Your task to perform on an android device: change text size in settings app Image 0: 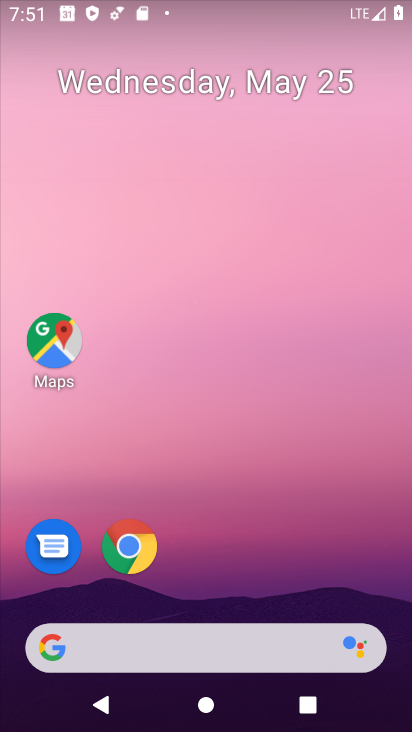
Step 0: drag from (389, 586) to (402, 194)
Your task to perform on an android device: change text size in settings app Image 1: 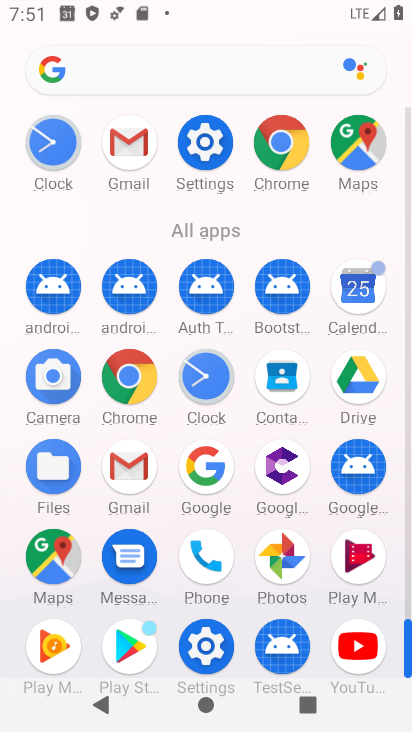
Step 1: click (214, 643)
Your task to perform on an android device: change text size in settings app Image 2: 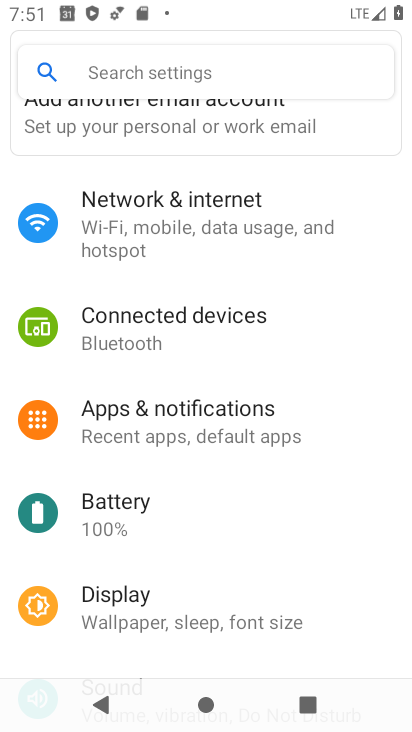
Step 2: drag from (315, 522) to (329, 414)
Your task to perform on an android device: change text size in settings app Image 3: 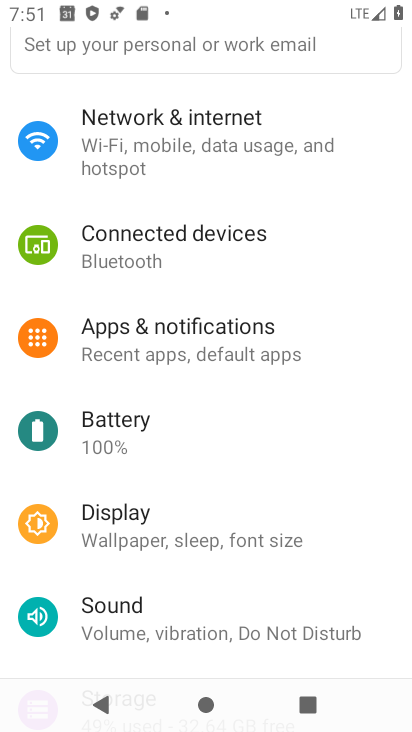
Step 3: drag from (332, 528) to (347, 436)
Your task to perform on an android device: change text size in settings app Image 4: 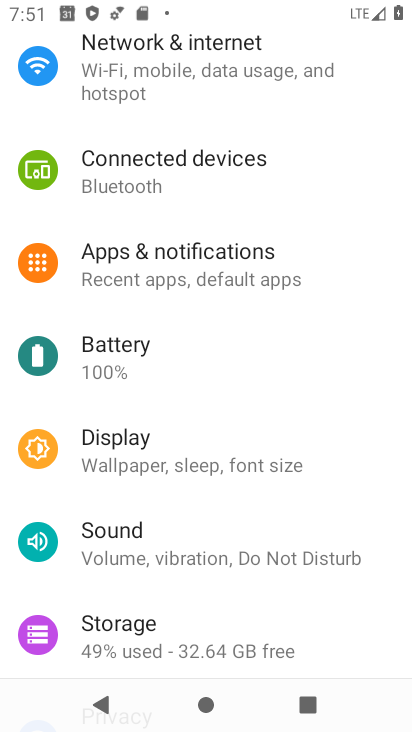
Step 4: drag from (360, 626) to (376, 497)
Your task to perform on an android device: change text size in settings app Image 5: 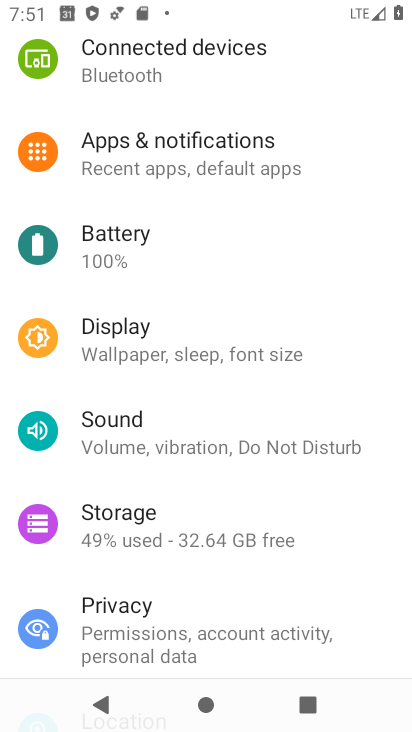
Step 5: drag from (361, 610) to (374, 503)
Your task to perform on an android device: change text size in settings app Image 6: 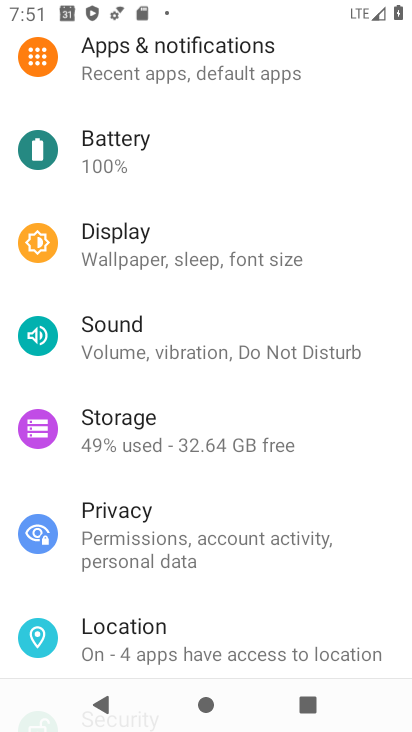
Step 6: drag from (367, 603) to (402, 457)
Your task to perform on an android device: change text size in settings app Image 7: 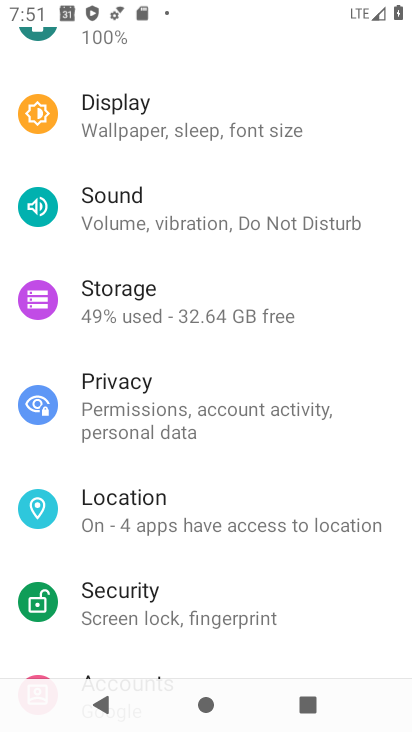
Step 7: drag from (352, 613) to (352, 480)
Your task to perform on an android device: change text size in settings app Image 8: 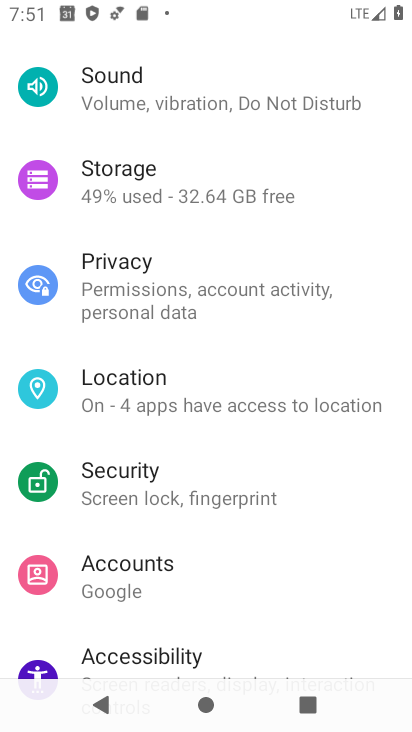
Step 8: drag from (377, 619) to (377, 505)
Your task to perform on an android device: change text size in settings app Image 9: 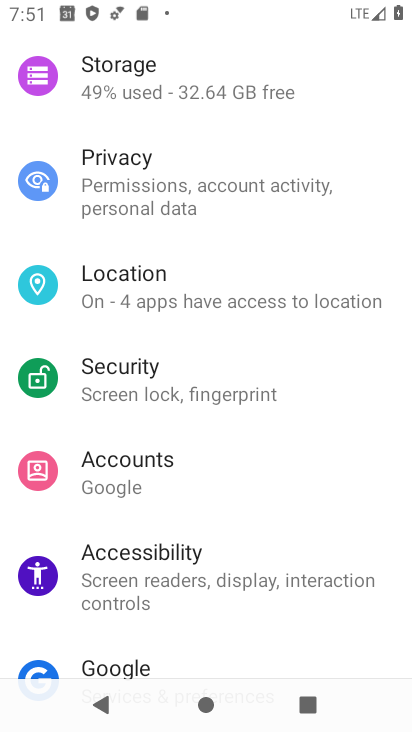
Step 9: drag from (372, 633) to (363, 481)
Your task to perform on an android device: change text size in settings app Image 10: 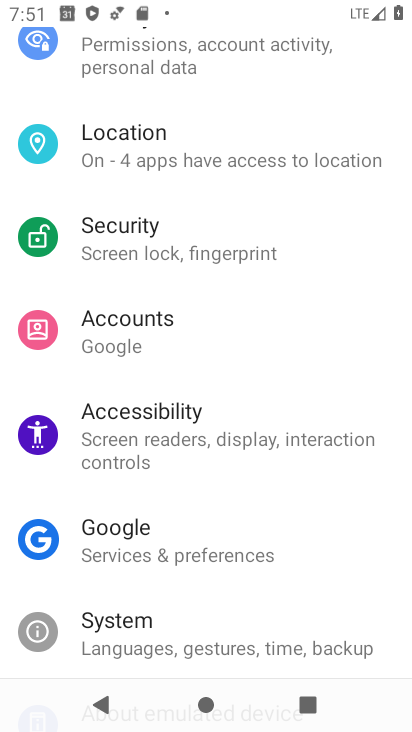
Step 10: drag from (371, 591) to (370, 415)
Your task to perform on an android device: change text size in settings app Image 11: 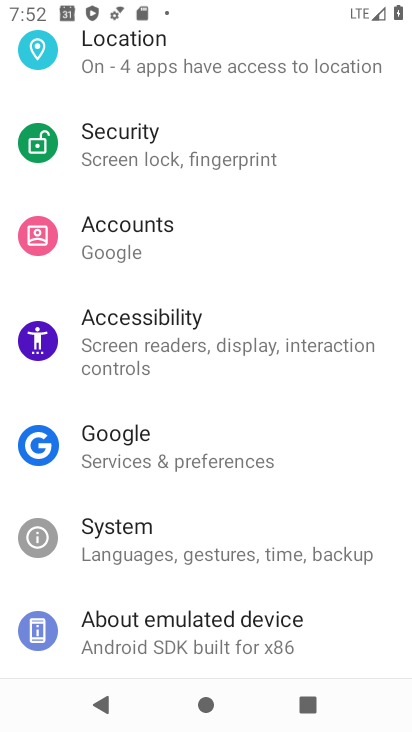
Step 11: drag from (366, 383) to (368, 488)
Your task to perform on an android device: change text size in settings app Image 12: 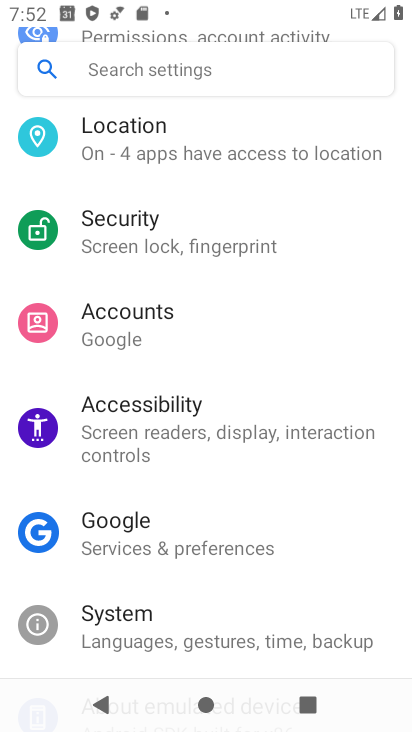
Step 12: drag from (379, 348) to (393, 476)
Your task to perform on an android device: change text size in settings app Image 13: 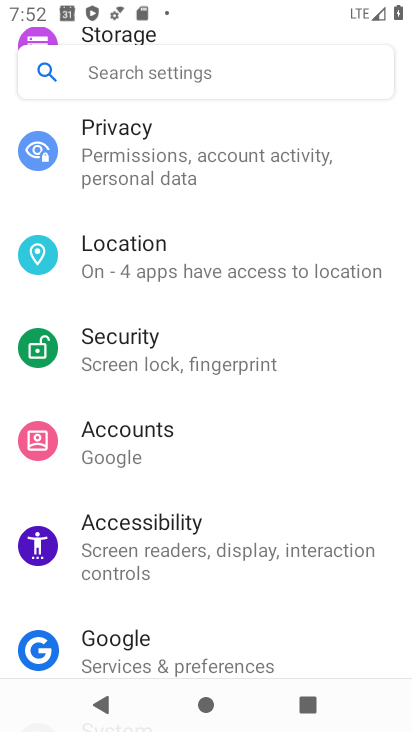
Step 13: drag from (378, 336) to (384, 453)
Your task to perform on an android device: change text size in settings app Image 14: 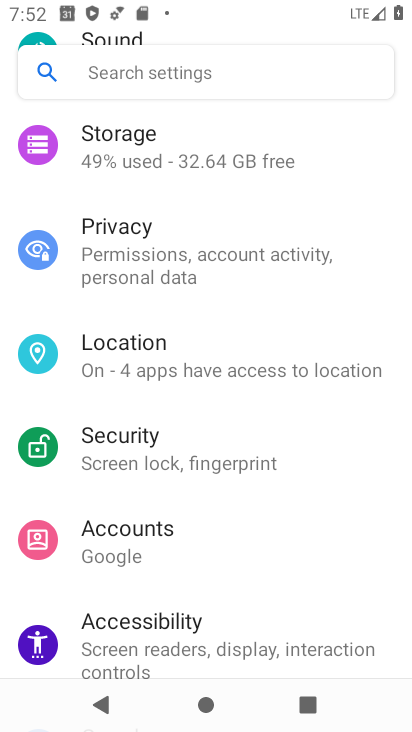
Step 14: drag from (378, 311) to (379, 447)
Your task to perform on an android device: change text size in settings app Image 15: 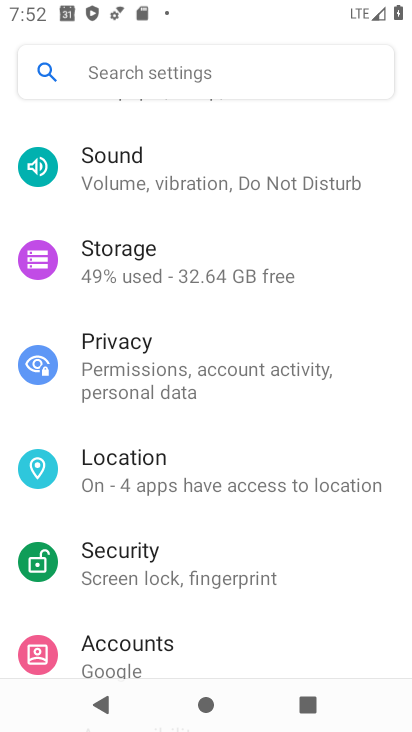
Step 15: drag from (359, 287) to (356, 382)
Your task to perform on an android device: change text size in settings app Image 16: 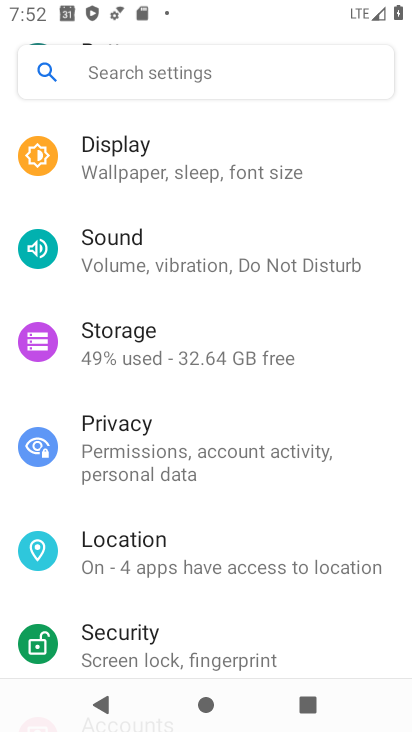
Step 16: drag from (344, 340) to (342, 486)
Your task to perform on an android device: change text size in settings app Image 17: 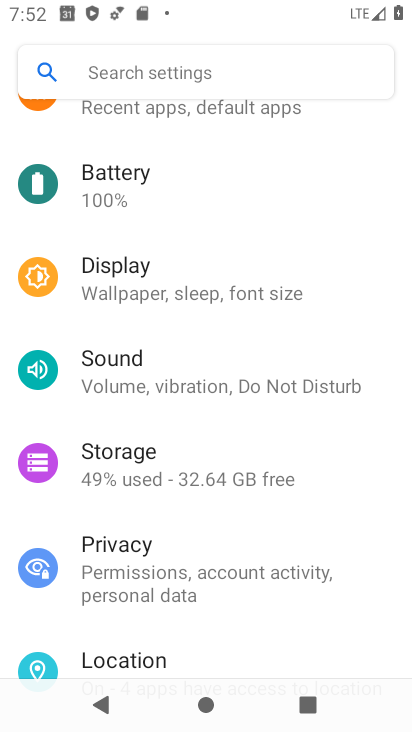
Step 17: drag from (304, 356) to (306, 420)
Your task to perform on an android device: change text size in settings app Image 18: 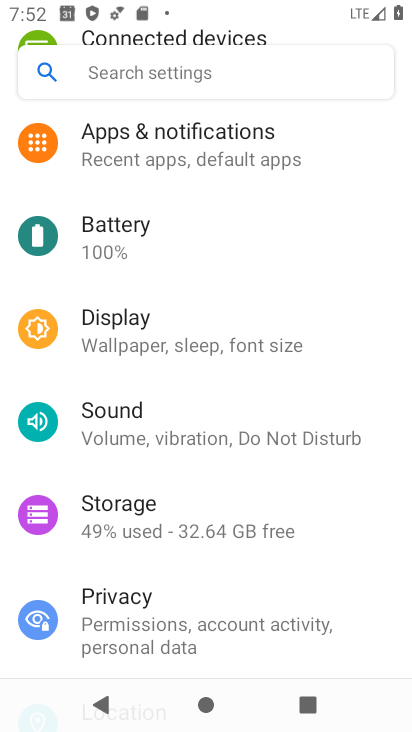
Step 18: drag from (290, 372) to (288, 459)
Your task to perform on an android device: change text size in settings app Image 19: 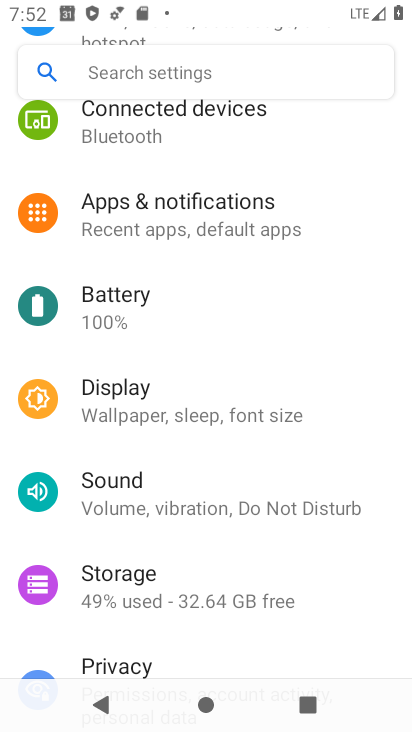
Step 19: drag from (327, 290) to (339, 410)
Your task to perform on an android device: change text size in settings app Image 20: 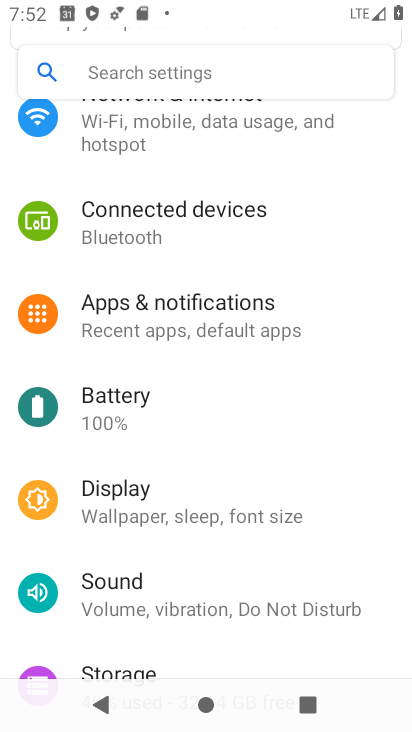
Step 20: click (256, 517)
Your task to perform on an android device: change text size in settings app Image 21: 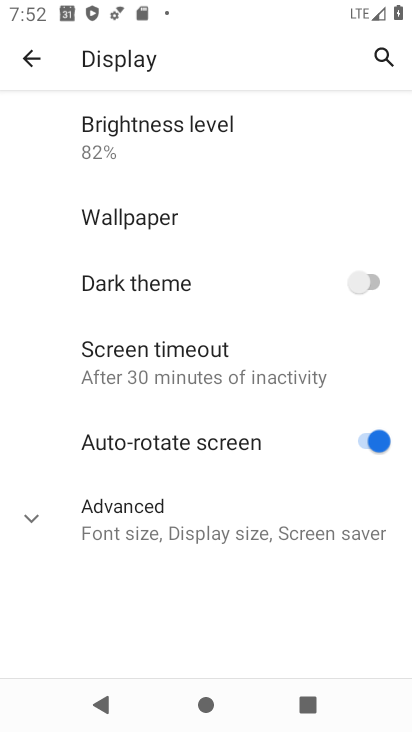
Step 21: click (243, 530)
Your task to perform on an android device: change text size in settings app Image 22: 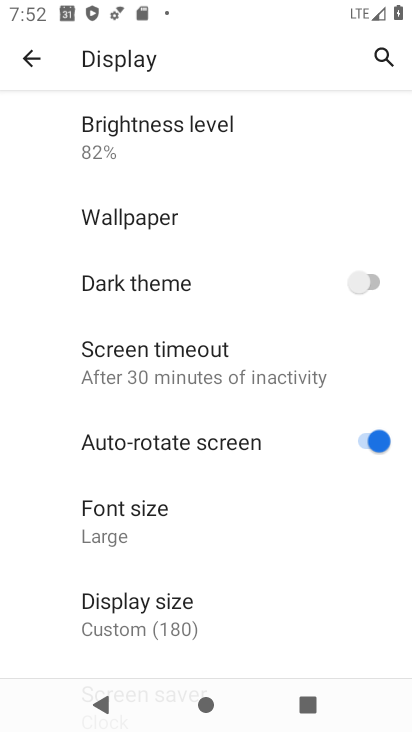
Step 22: click (140, 529)
Your task to perform on an android device: change text size in settings app Image 23: 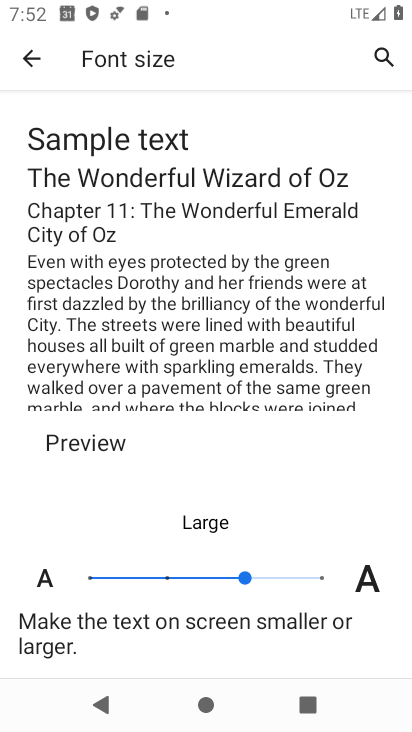
Step 23: click (166, 579)
Your task to perform on an android device: change text size in settings app Image 24: 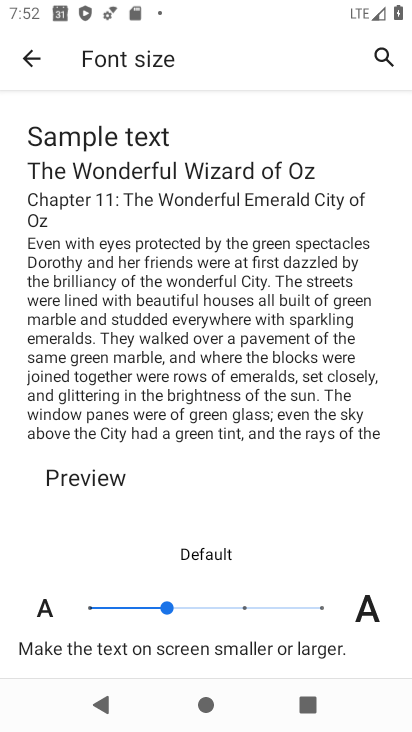
Step 24: task complete